Your task to perform on an android device: toggle priority inbox in the gmail app Image 0: 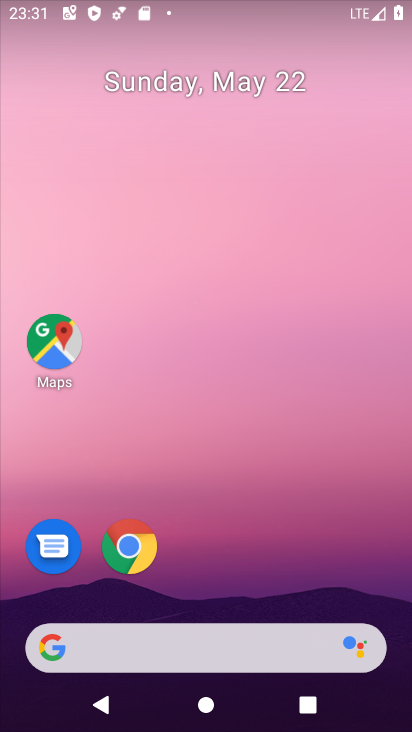
Step 0: drag from (197, 592) to (197, 169)
Your task to perform on an android device: toggle priority inbox in the gmail app Image 1: 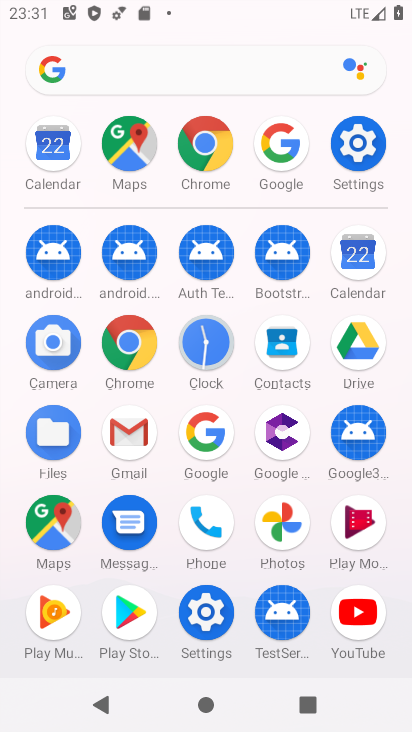
Step 1: click (104, 425)
Your task to perform on an android device: toggle priority inbox in the gmail app Image 2: 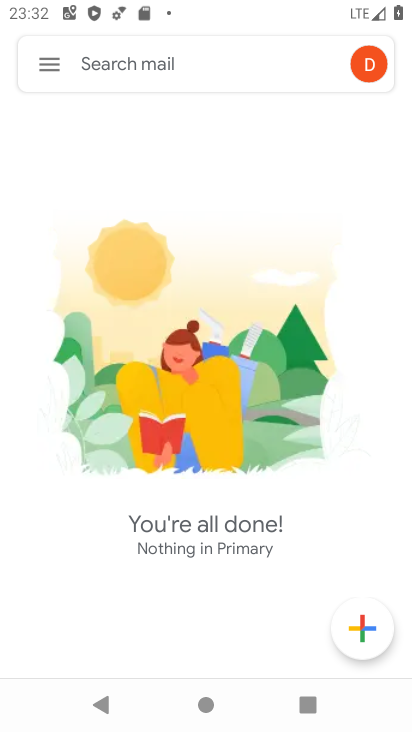
Step 2: click (38, 71)
Your task to perform on an android device: toggle priority inbox in the gmail app Image 3: 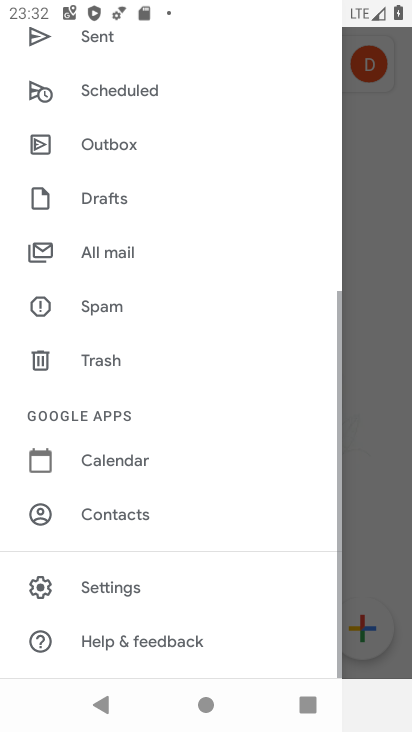
Step 3: drag from (130, 590) to (171, 149)
Your task to perform on an android device: toggle priority inbox in the gmail app Image 4: 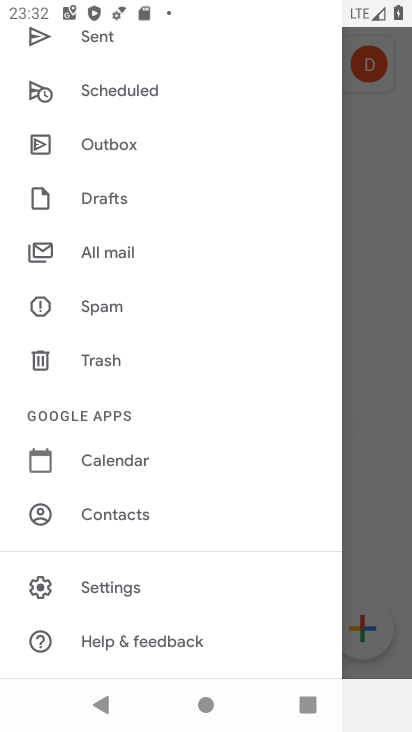
Step 4: click (135, 577)
Your task to perform on an android device: toggle priority inbox in the gmail app Image 5: 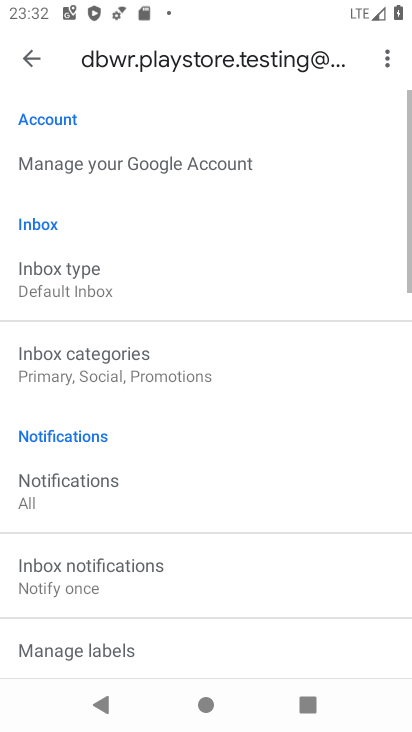
Step 5: click (110, 287)
Your task to perform on an android device: toggle priority inbox in the gmail app Image 6: 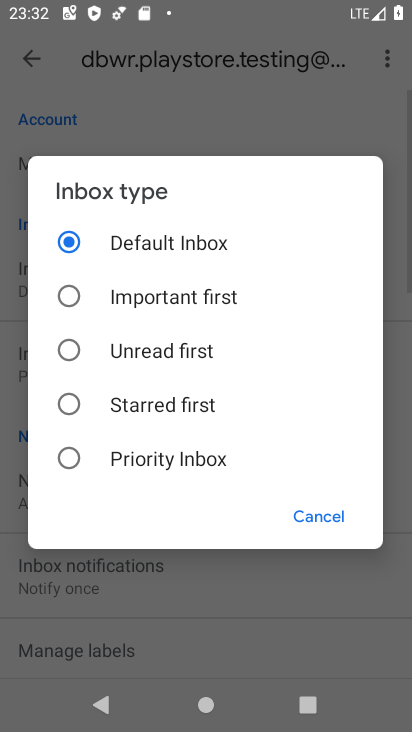
Step 6: click (136, 464)
Your task to perform on an android device: toggle priority inbox in the gmail app Image 7: 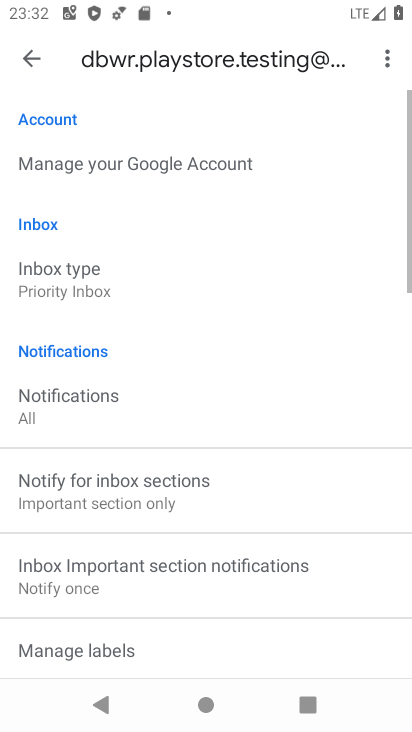
Step 7: task complete